Your task to perform on an android device: Turn off the flashlight Image 0: 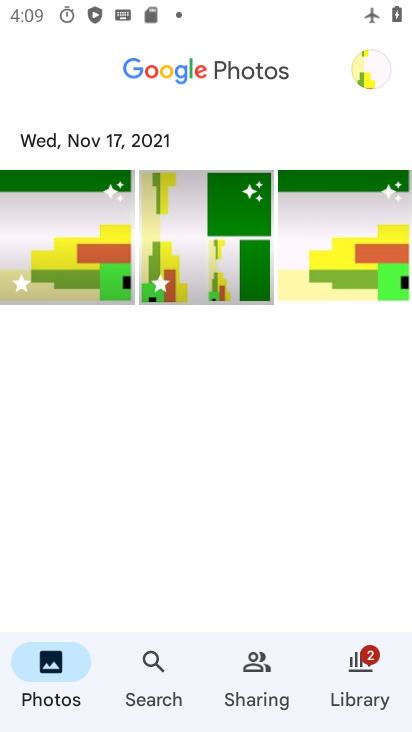
Step 0: press home button
Your task to perform on an android device: Turn off the flashlight Image 1: 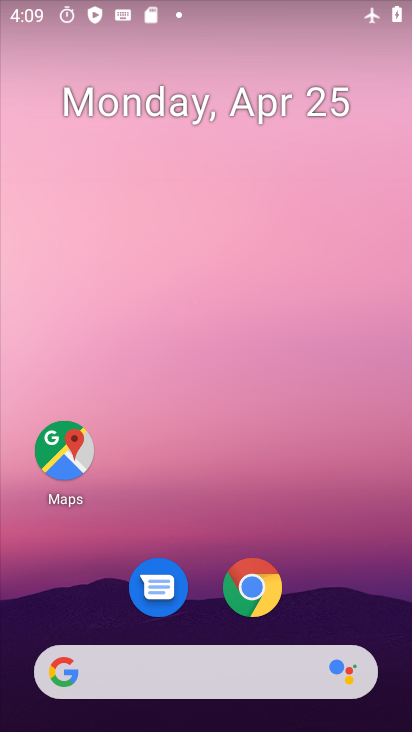
Step 1: task complete